Your task to perform on an android device: When is my next meeting? Image 0: 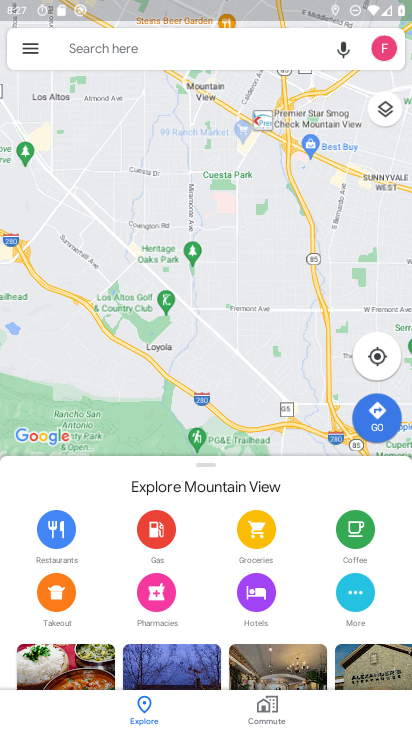
Step 0: press home button
Your task to perform on an android device: When is my next meeting? Image 1: 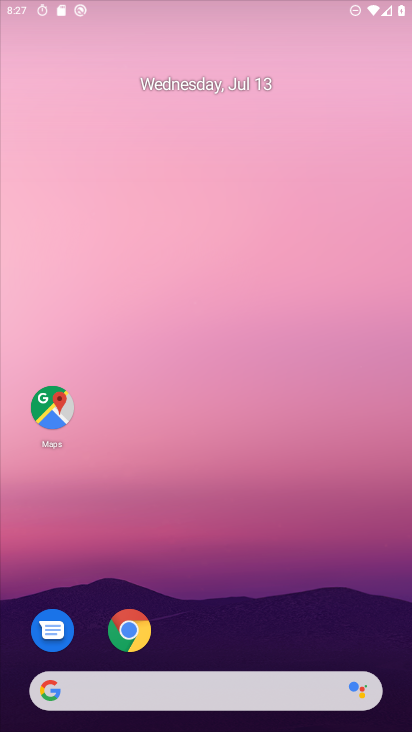
Step 1: drag from (385, 664) to (223, 150)
Your task to perform on an android device: When is my next meeting? Image 2: 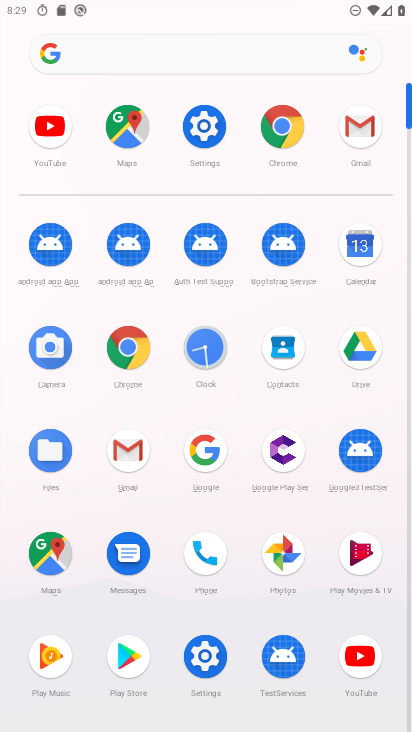
Step 2: click (363, 259)
Your task to perform on an android device: When is my next meeting? Image 3: 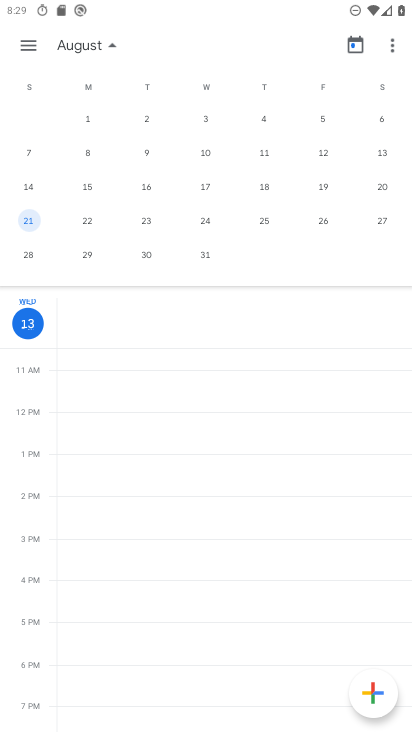
Step 3: task complete